Your task to perform on an android device: Go to location settings Image 0: 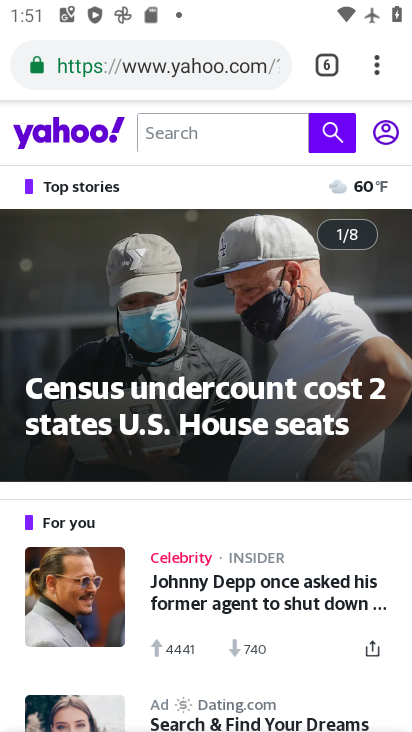
Step 0: press home button
Your task to perform on an android device: Go to location settings Image 1: 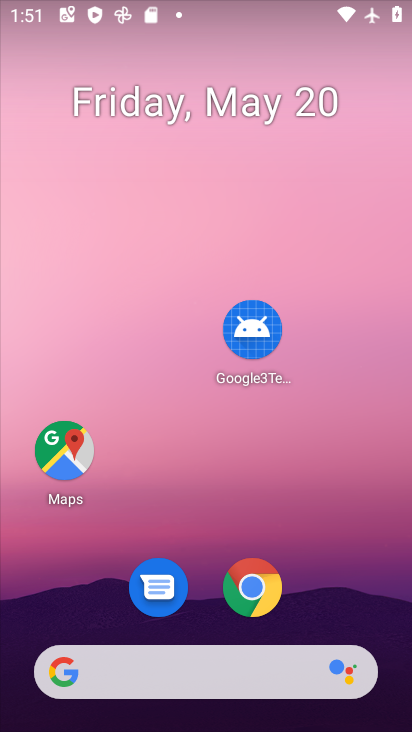
Step 1: drag from (322, 542) to (210, 12)
Your task to perform on an android device: Go to location settings Image 2: 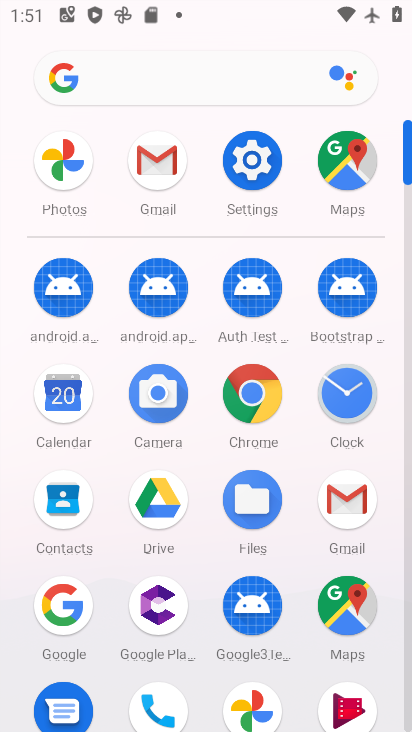
Step 2: click (259, 163)
Your task to perform on an android device: Go to location settings Image 3: 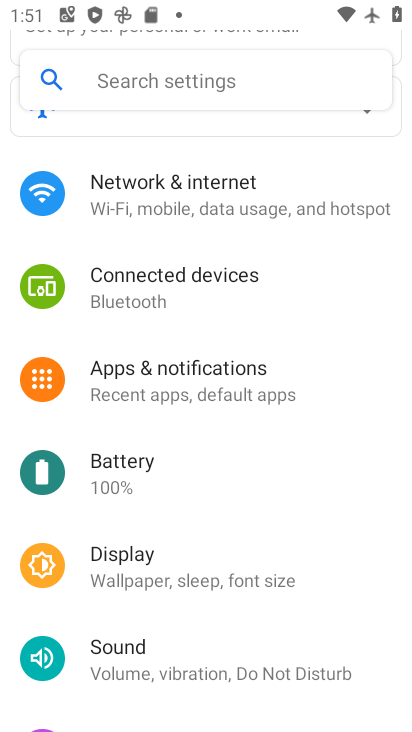
Step 3: drag from (252, 481) to (246, 136)
Your task to perform on an android device: Go to location settings Image 4: 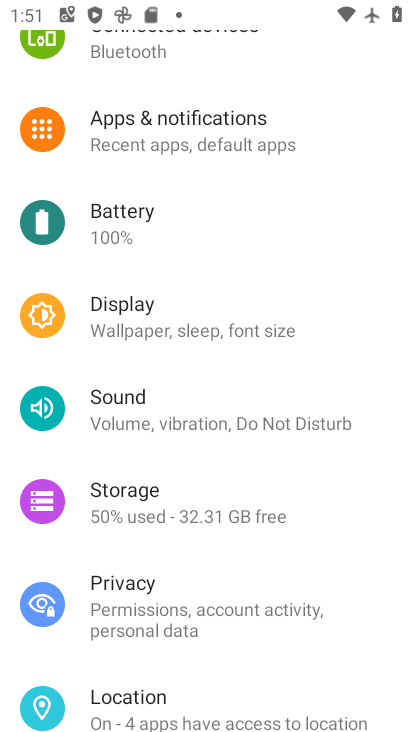
Step 4: click (121, 698)
Your task to perform on an android device: Go to location settings Image 5: 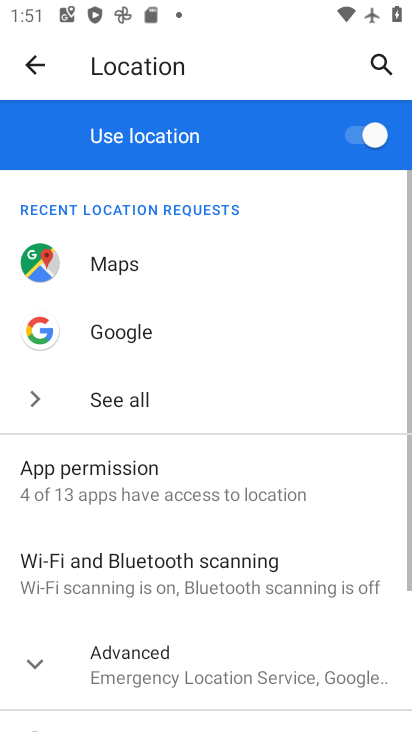
Step 5: task complete